Your task to perform on an android device: Open the stopwatch Image 0: 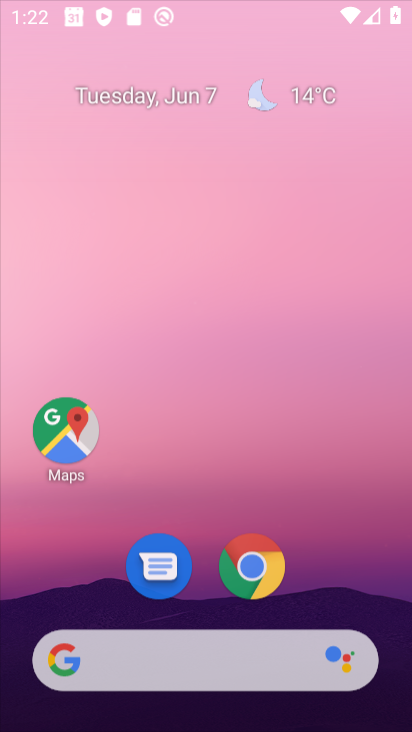
Step 0: press home button
Your task to perform on an android device: Open the stopwatch Image 1: 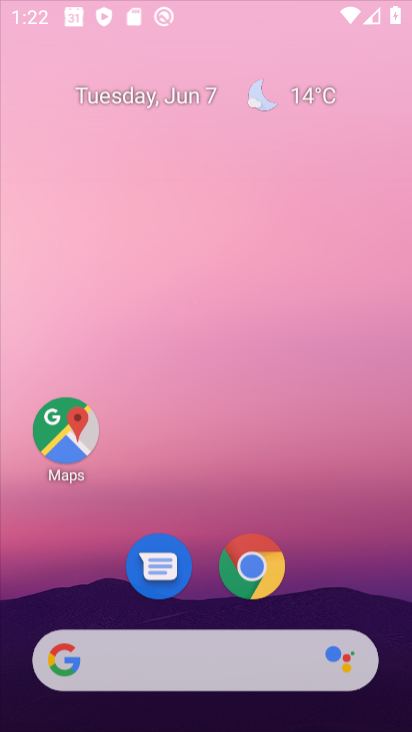
Step 1: click (66, 431)
Your task to perform on an android device: Open the stopwatch Image 2: 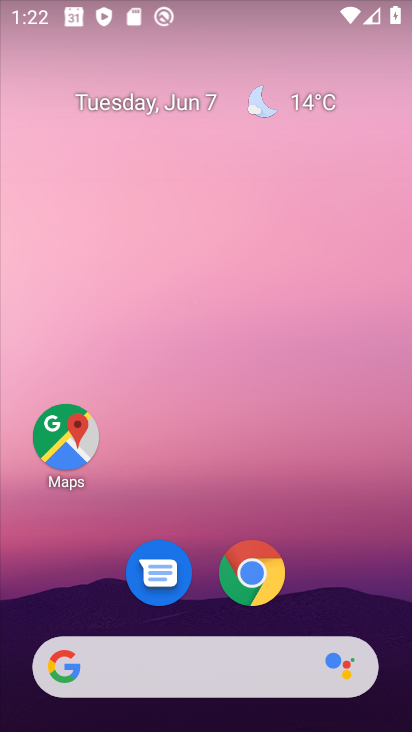
Step 2: drag from (215, 619) to (224, 69)
Your task to perform on an android device: Open the stopwatch Image 3: 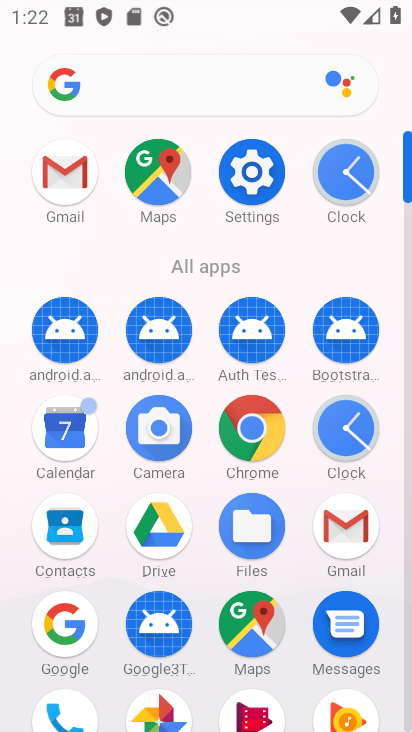
Step 3: click (345, 168)
Your task to perform on an android device: Open the stopwatch Image 4: 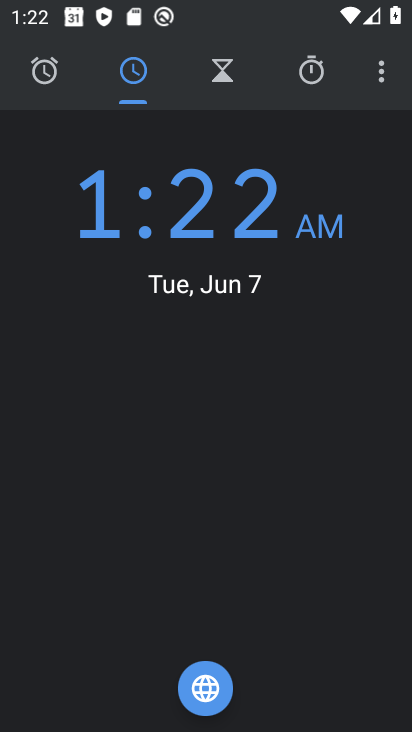
Step 4: click (303, 68)
Your task to perform on an android device: Open the stopwatch Image 5: 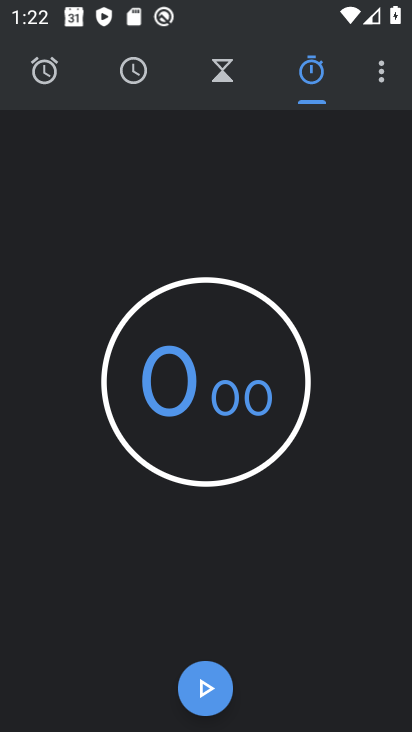
Step 5: click (203, 678)
Your task to perform on an android device: Open the stopwatch Image 6: 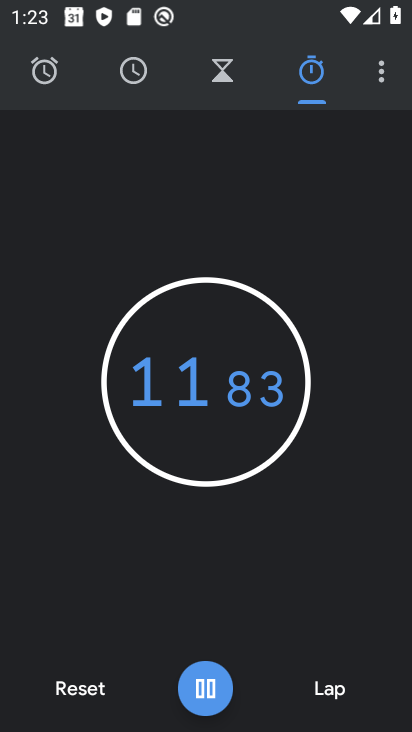
Step 6: task complete